Your task to perform on an android device: Search for seafood restaurants on Google Maps Image 0: 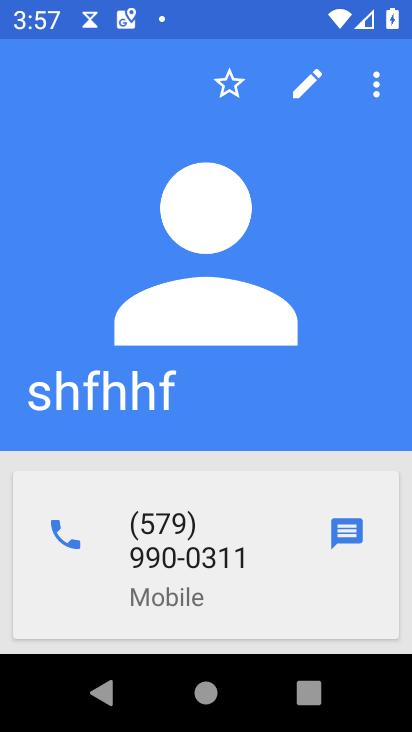
Step 0: press home button
Your task to perform on an android device: Search for seafood restaurants on Google Maps Image 1: 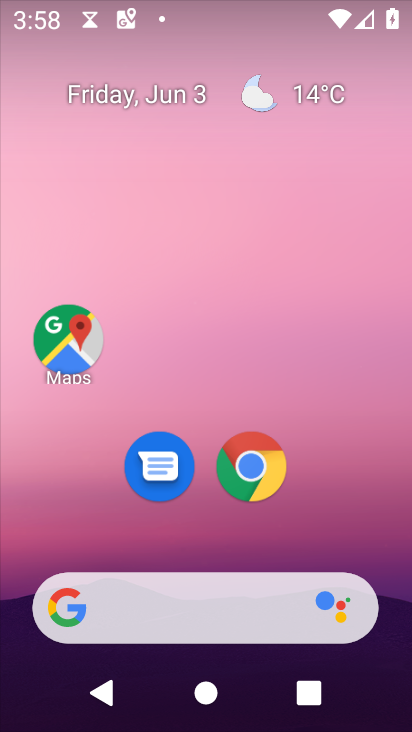
Step 1: click (85, 355)
Your task to perform on an android device: Search for seafood restaurants on Google Maps Image 2: 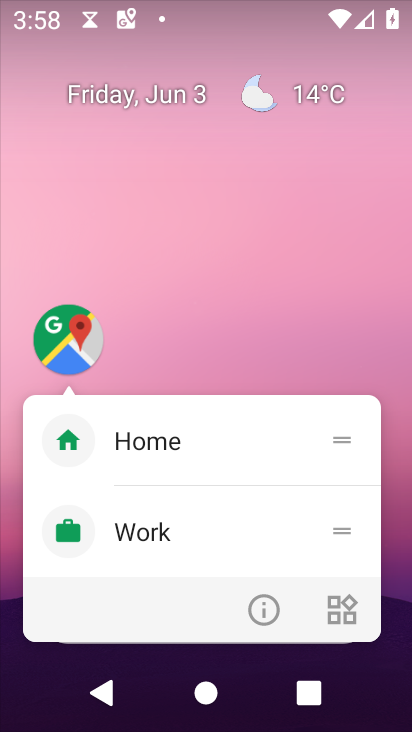
Step 2: click (65, 320)
Your task to perform on an android device: Search for seafood restaurants on Google Maps Image 3: 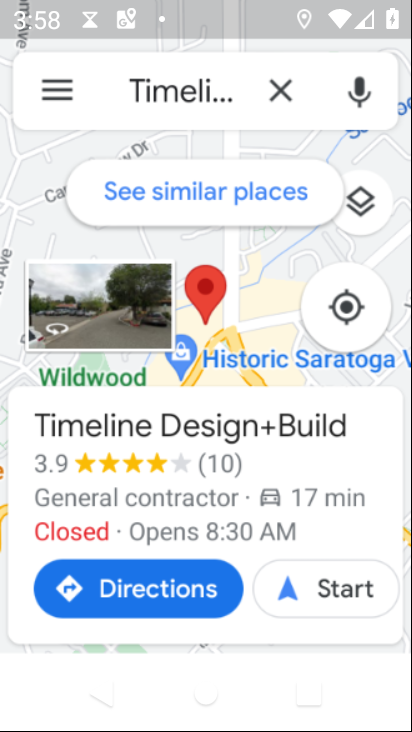
Step 3: click (274, 88)
Your task to perform on an android device: Search for seafood restaurants on Google Maps Image 4: 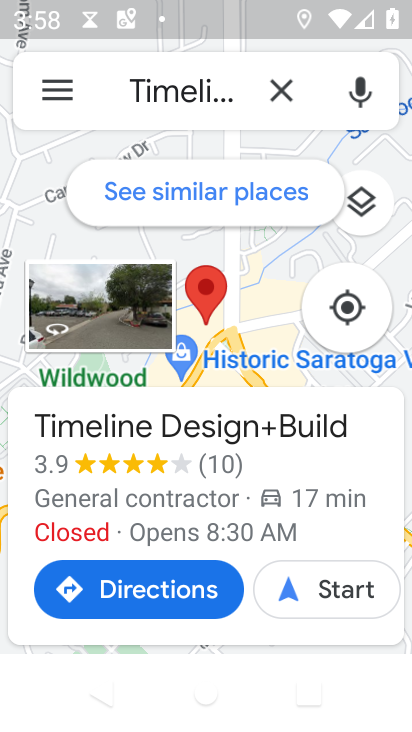
Step 4: click (272, 88)
Your task to perform on an android device: Search for seafood restaurants on Google Maps Image 5: 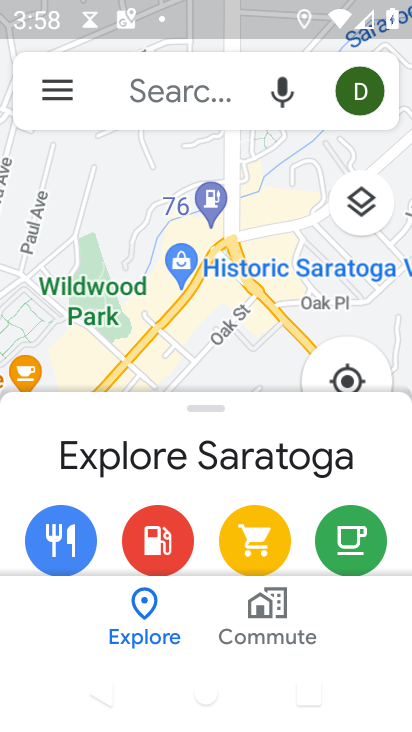
Step 5: click (197, 99)
Your task to perform on an android device: Search for seafood restaurants on Google Maps Image 6: 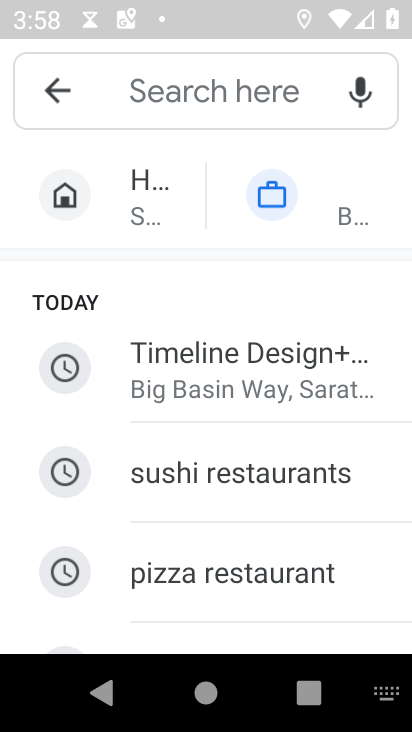
Step 6: type "seafood restaurants"
Your task to perform on an android device: Search for seafood restaurants on Google Maps Image 7: 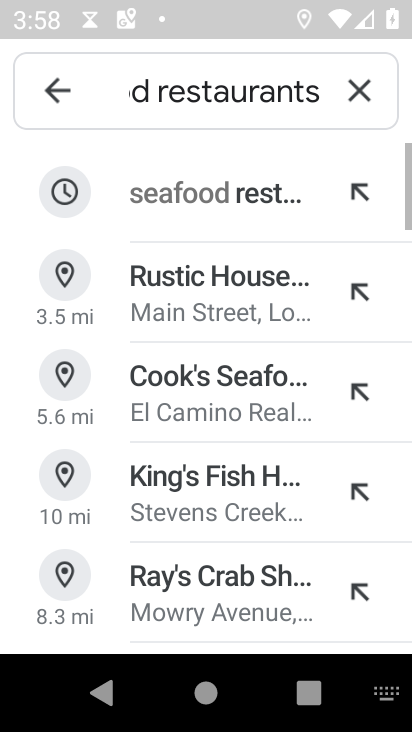
Step 7: click (197, 201)
Your task to perform on an android device: Search for seafood restaurants on Google Maps Image 8: 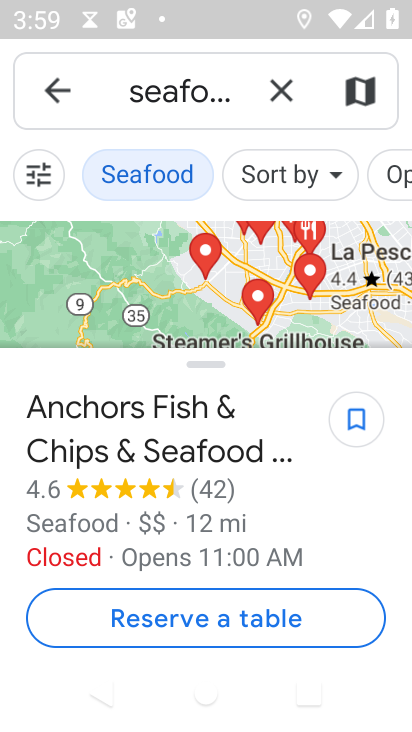
Step 8: task complete